Your task to perform on an android device: Search for Mexican restaurants on Maps Image 0: 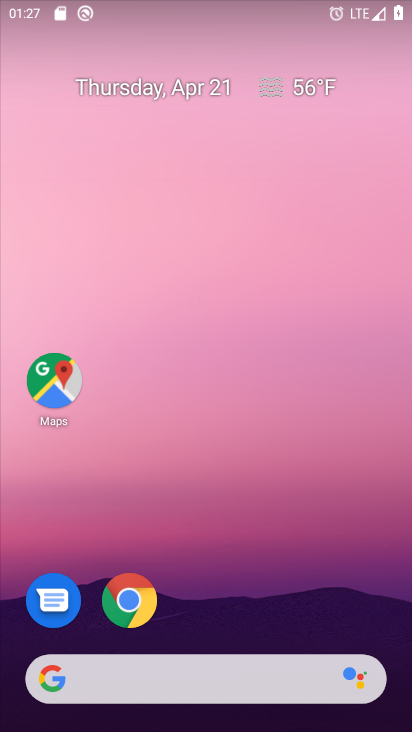
Step 0: click (47, 385)
Your task to perform on an android device: Search for Mexican restaurants on Maps Image 1: 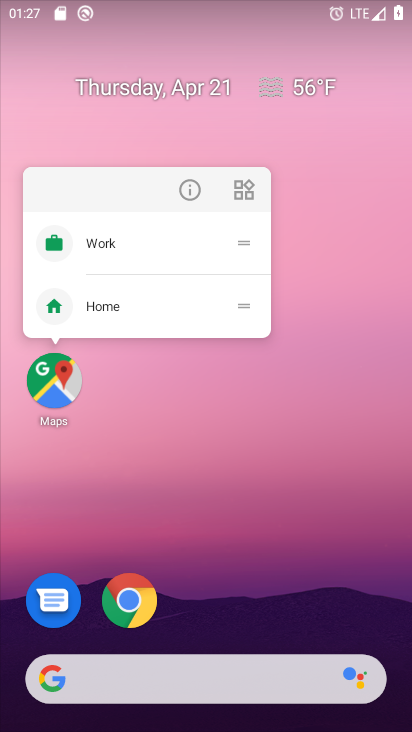
Step 1: click (45, 394)
Your task to perform on an android device: Search for Mexican restaurants on Maps Image 2: 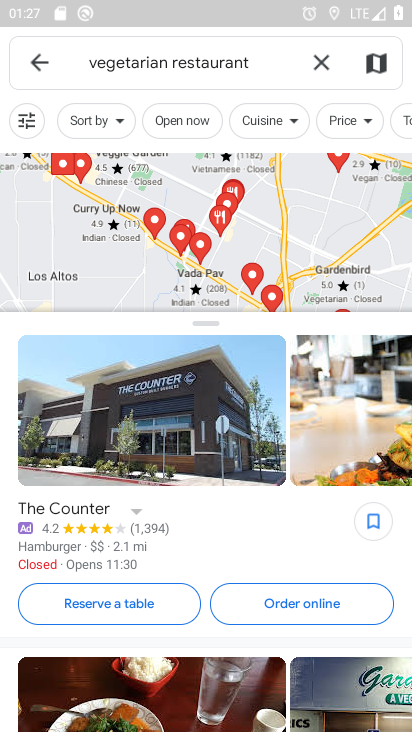
Step 2: click (324, 65)
Your task to perform on an android device: Search for Mexican restaurants on Maps Image 3: 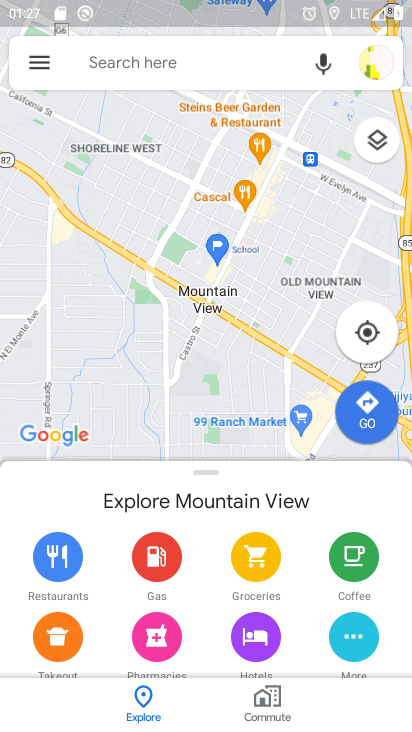
Step 3: click (181, 60)
Your task to perform on an android device: Search for Mexican restaurants on Maps Image 4: 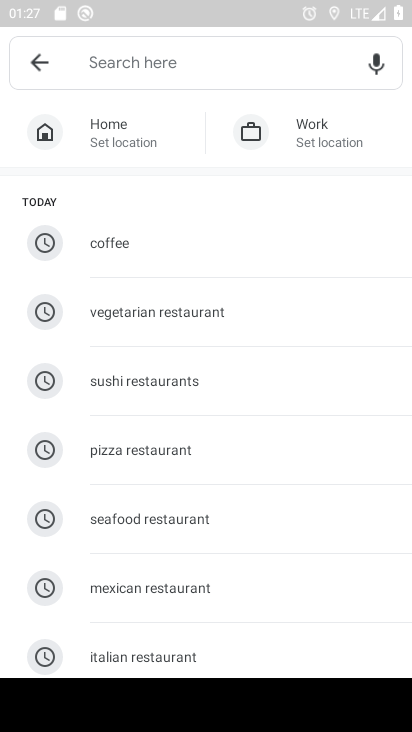
Step 4: click (146, 583)
Your task to perform on an android device: Search for Mexican restaurants on Maps Image 5: 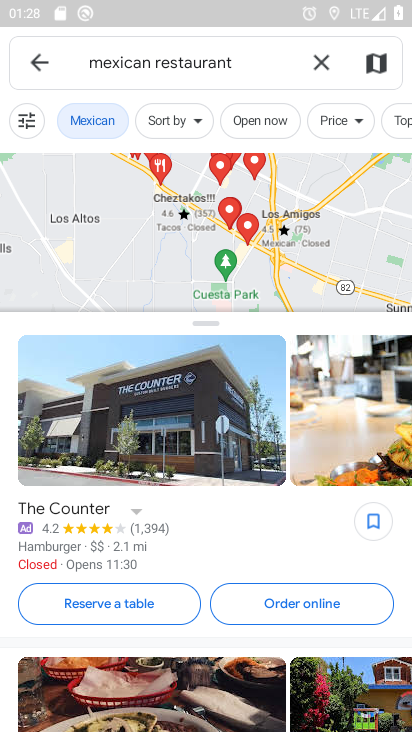
Step 5: task complete